Your task to perform on an android device: change the clock display to show seconds Image 0: 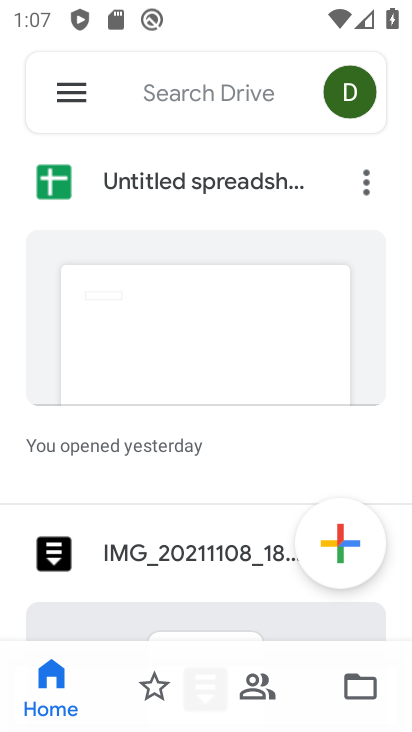
Step 0: press home button
Your task to perform on an android device: change the clock display to show seconds Image 1: 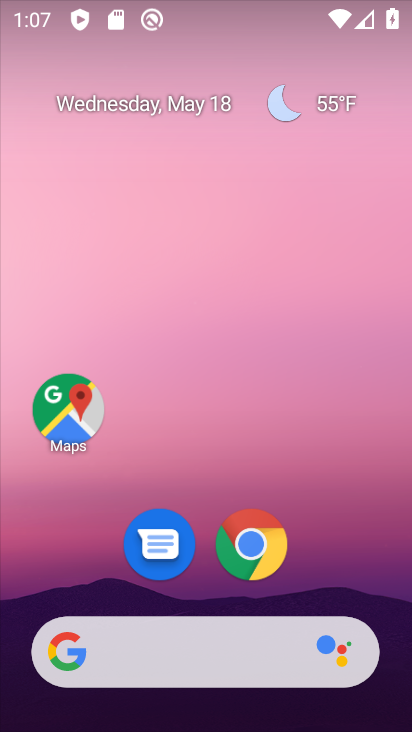
Step 1: drag from (326, 592) to (268, 122)
Your task to perform on an android device: change the clock display to show seconds Image 2: 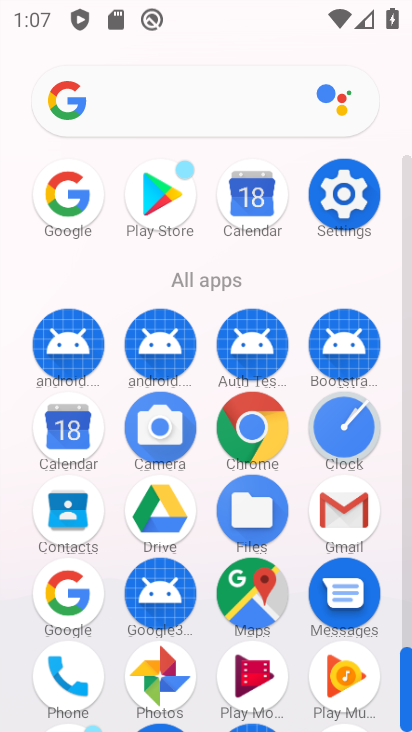
Step 2: click (331, 437)
Your task to perform on an android device: change the clock display to show seconds Image 3: 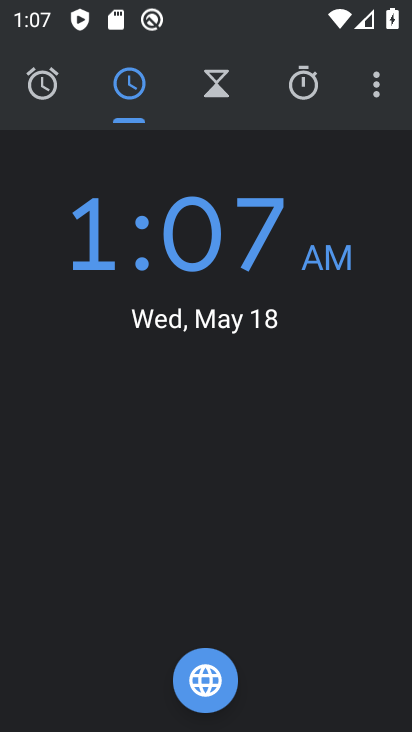
Step 3: click (380, 87)
Your task to perform on an android device: change the clock display to show seconds Image 4: 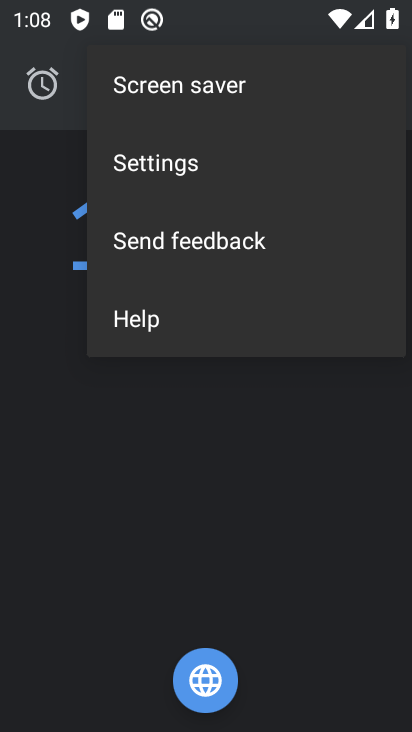
Step 4: click (176, 149)
Your task to perform on an android device: change the clock display to show seconds Image 5: 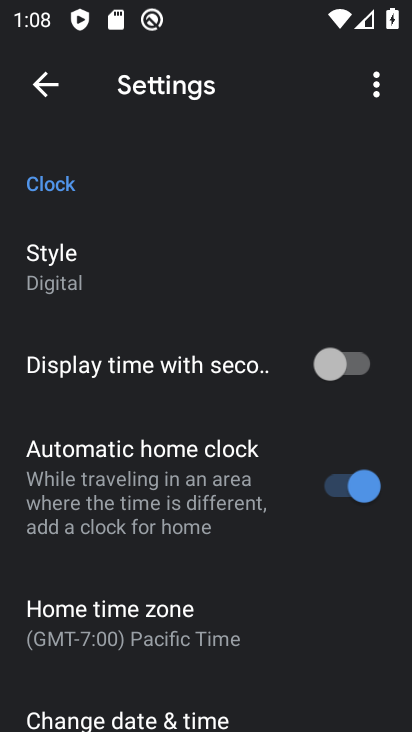
Step 5: click (352, 359)
Your task to perform on an android device: change the clock display to show seconds Image 6: 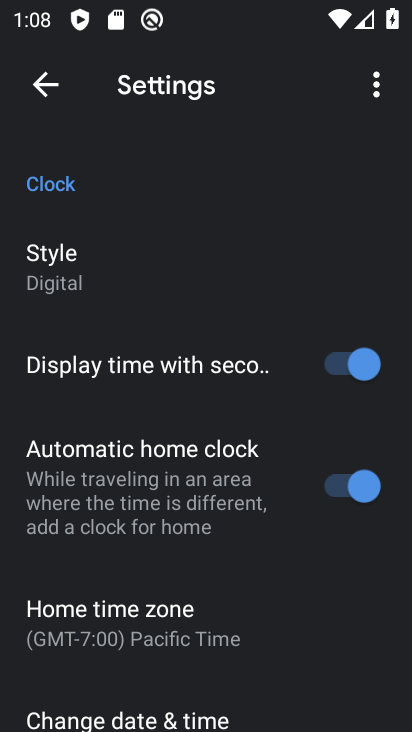
Step 6: task complete